Your task to perform on an android device: change the upload size in google photos Image 0: 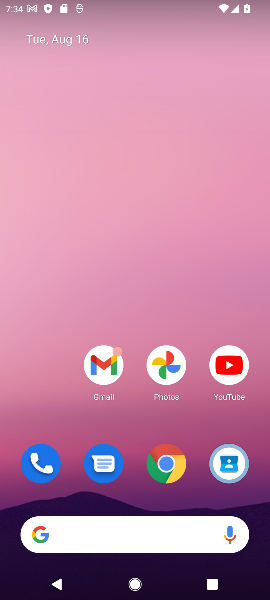
Step 0: press home button
Your task to perform on an android device: change the upload size in google photos Image 1: 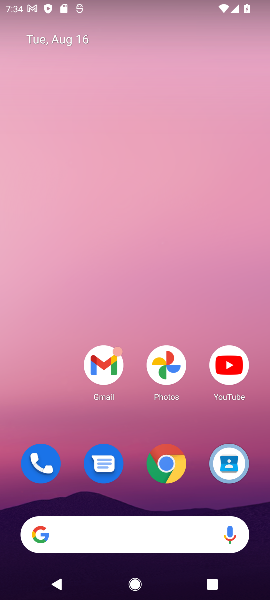
Step 1: click (164, 366)
Your task to perform on an android device: change the upload size in google photos Image 2: 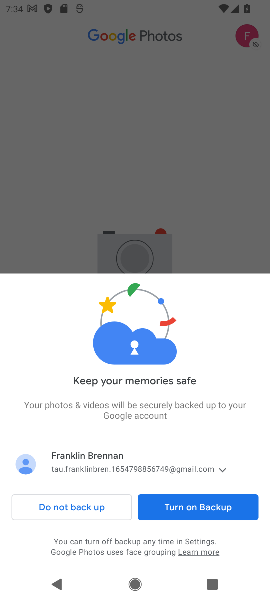
Step 2: click (170, 507)
Your task to perform on an android device: change the upload size in google photos Image 3: 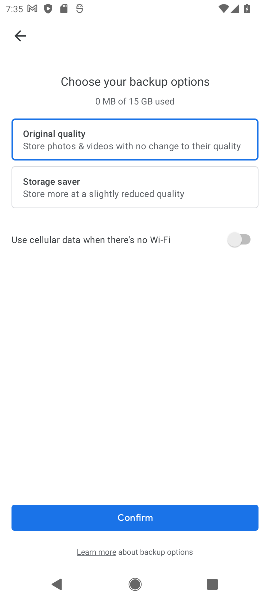
Step 3: click (165, 518)
Your task to perform on an android device: change the upload size in google photos Image 4: 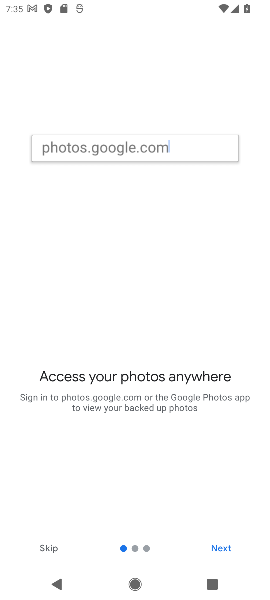
Step 4: click (215, 549)
Your task to perform on an android device: change the upload size in google photos Image 5: 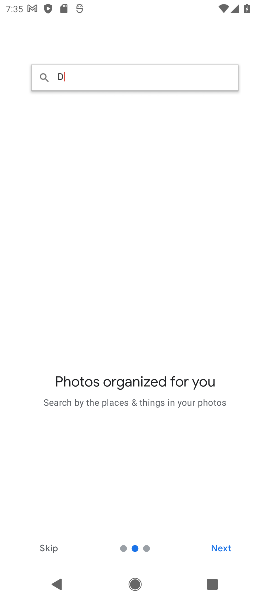
Step 5: click (215, 549)
Your task to perform on an android device: change the upload size in google photos Image 6: 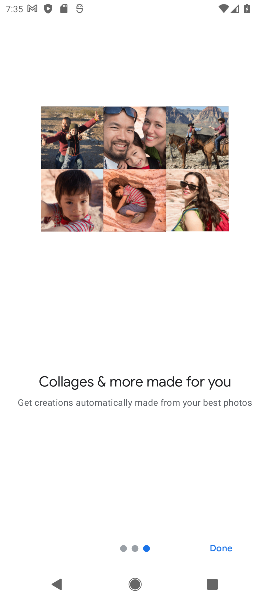
Step 6: click (219, 545)
Your task to perform on an android device: change the upload size in google photos Image 7: 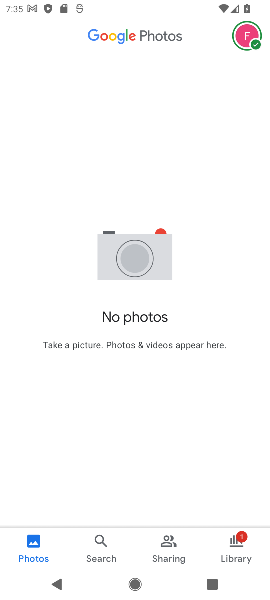
Step 7: click (243, 34)
Your task to perform on an android device: change the upload size in google photos Image 8: 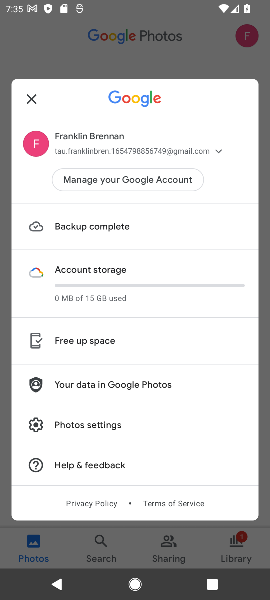
Step 8: click (107, 429)
Your task to perform on an android device: change the upload size in google photos Image 9: 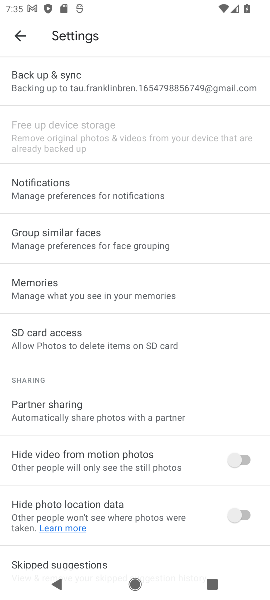
Step 9: click (90, 83)
Your task to perform on an android device: change the upload size in google photos Image 10: 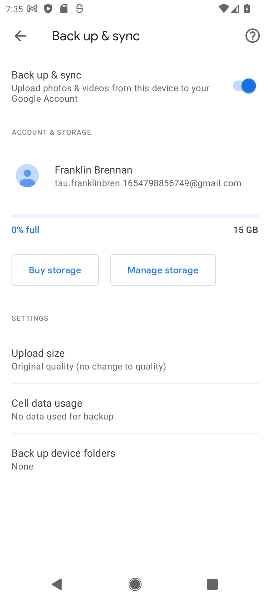
Step 10: click (58, 366)
Your task to perform on an android device: change the upload size in google photos Image 11: 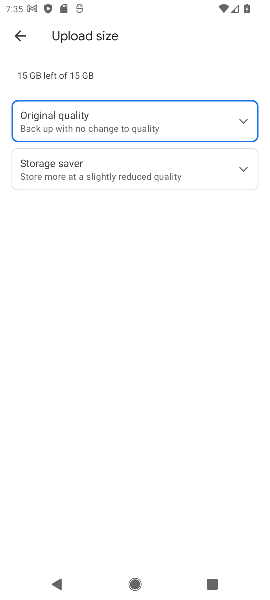
Step 11: click (116, 180)
Your task to perform on an android device: change the upload size in google photos Image 12: 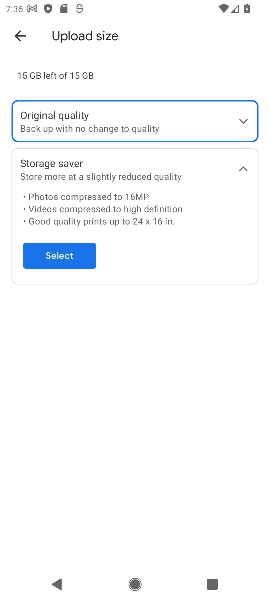
Step 12: click (74, 254)
Your task to perform on an android device: change the upload size in google photos Image 13: 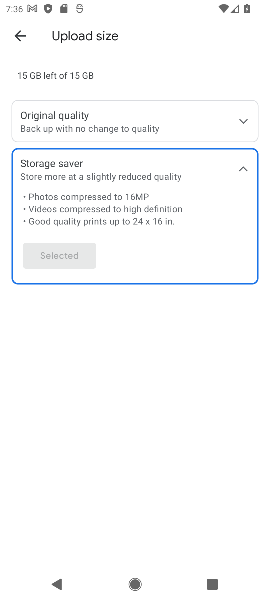
Step 13: task complete